Your task to perform on an android device: open the mobile data screen to see how much data has been used Image 0: 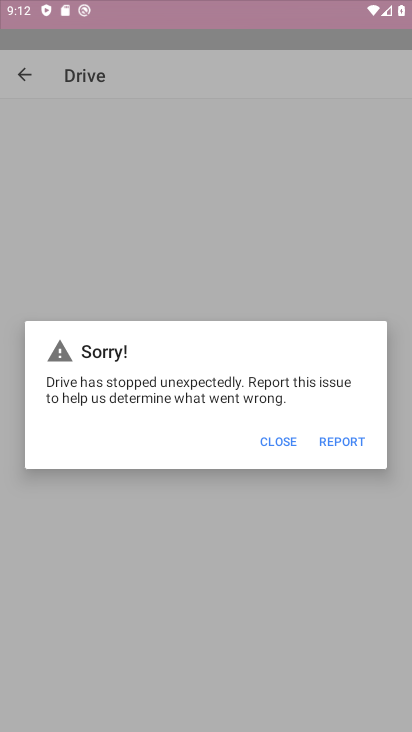
Step 0: click (48, 394)
Your task to perform on an android device: open the mobile data screen to see how much data has been used Image 1: 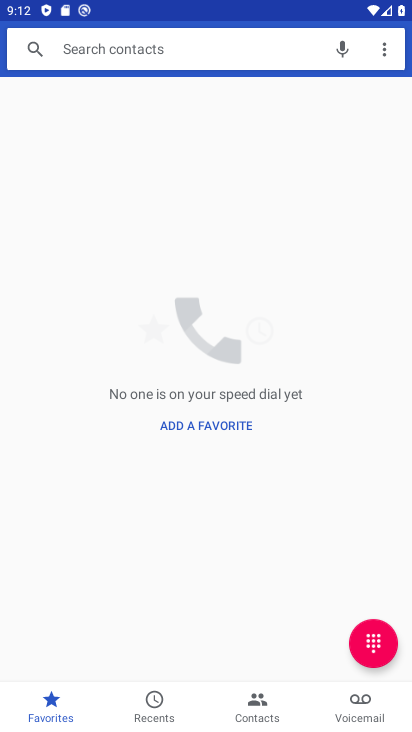
Step 1: click (146, 47)
Your task to perform on an android device: open the mobile data screen to see how much data has been used Image 2: 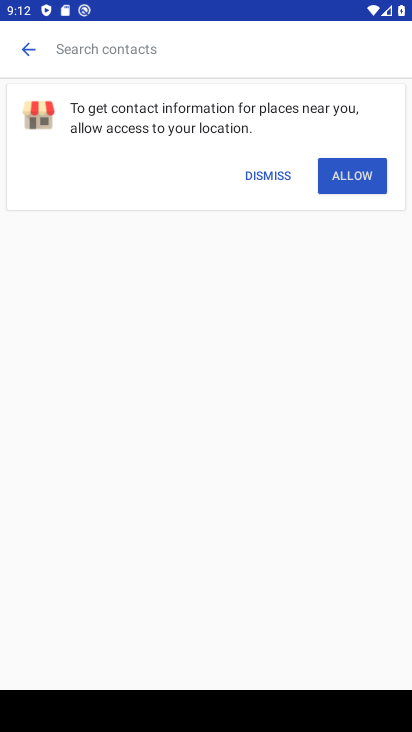
Step 2: press home button
Your task to perform on an android device: open the mobile data screen to see how much data has been used Image 3: 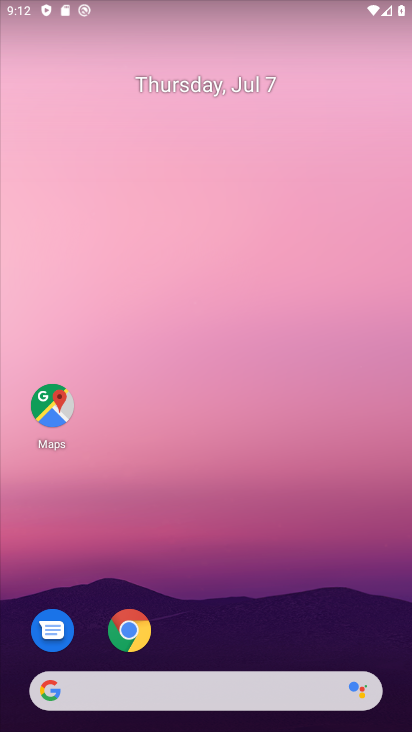
Step 3: drag from (142, 680) to (152, 328)
Your task to perform on an android device: open the mobile data screen to see how much data has been used Image 4: 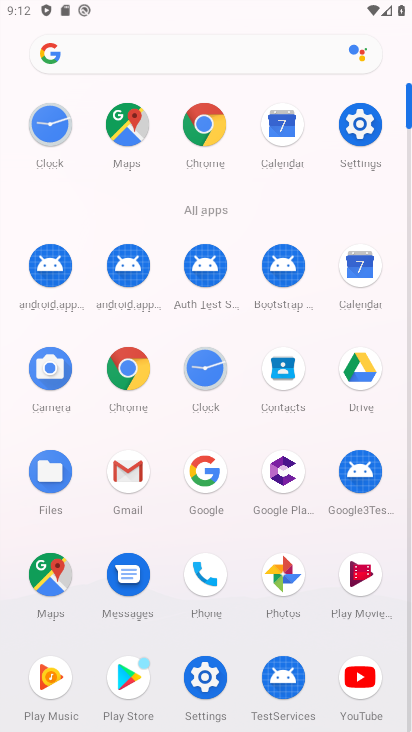
Step 4: click (366, 127)
Your task to perform on an android device: open the mobile data screen to see how much data has been used Image 5: 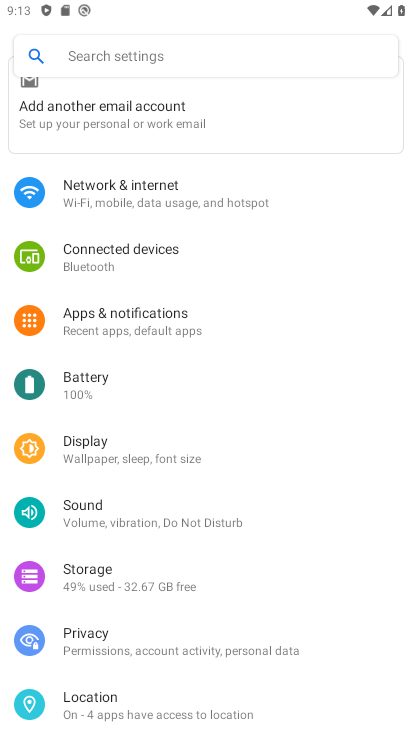
Step 5: click (93, 194)
Your task to perform on an android device: open the mobile data screen to see how much data has been used Image 6: 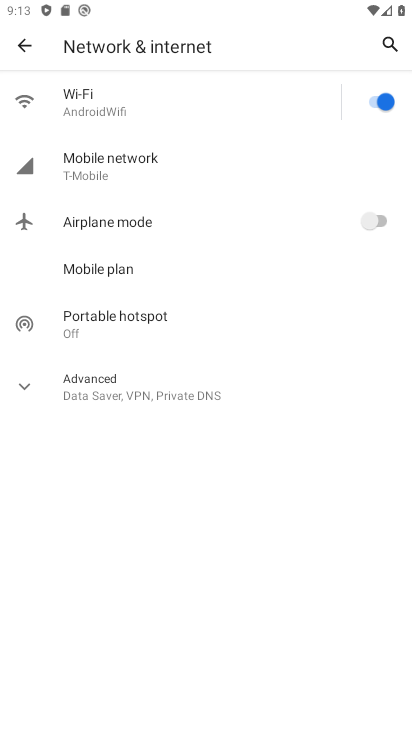
Step 6: click (93, 164)
Your task to perform on an android device: open the mobile data screen to see how much data has been used Image 7: 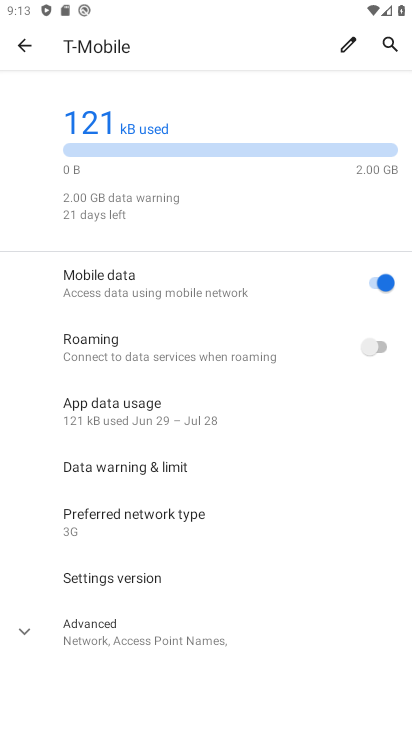
Step 7: task complete